Your task to perform on an android device: Do I have any events this weekend? Image 0: 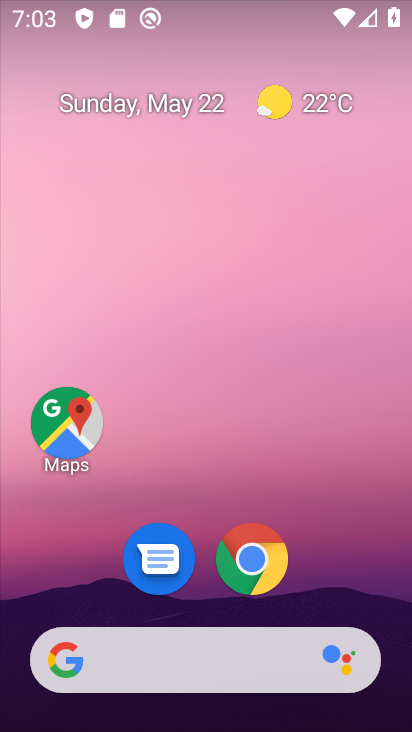
Step 0: drag from (247, 628) to (176, 96)
Your task to perform on an android device: Do I have any events this weekend? Image 1: 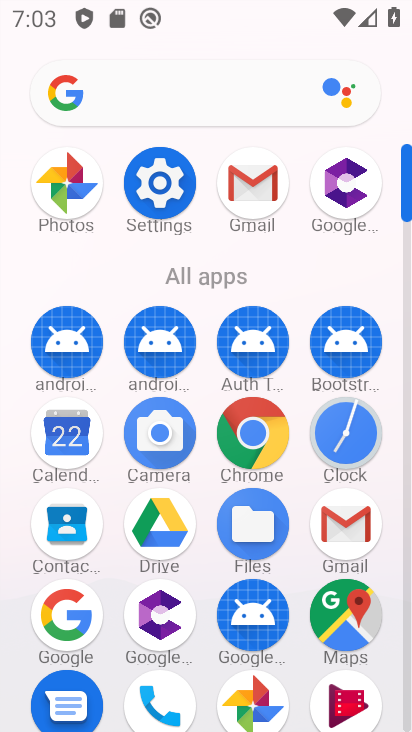
Step 1: click (74, 435)
Your task to perform on an android device: Do I have any events this weekend? Image 2: 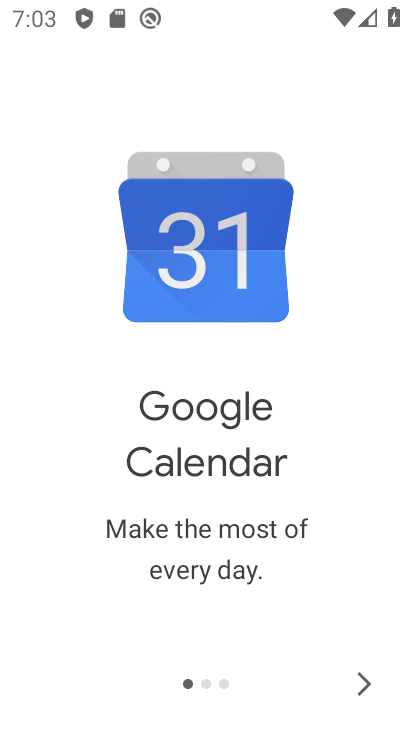
Step 2: click (360, 701)
Your task to perform on an android device: Do I have any events this weekend? Image 3: 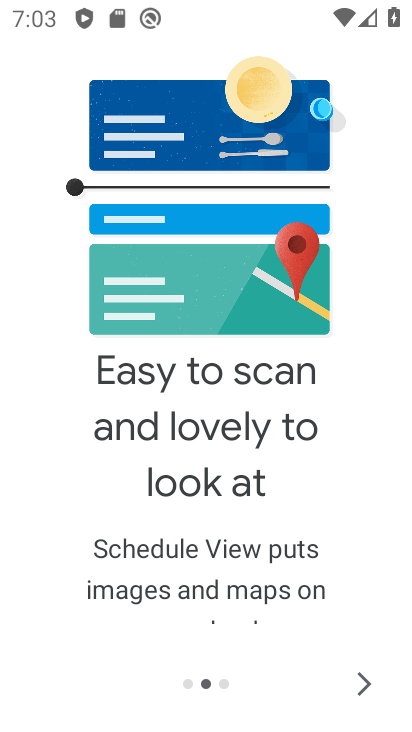
Step 3: click (361, 677)
Your task to perform on an android device: Do I have any events this weekend? Image 4: 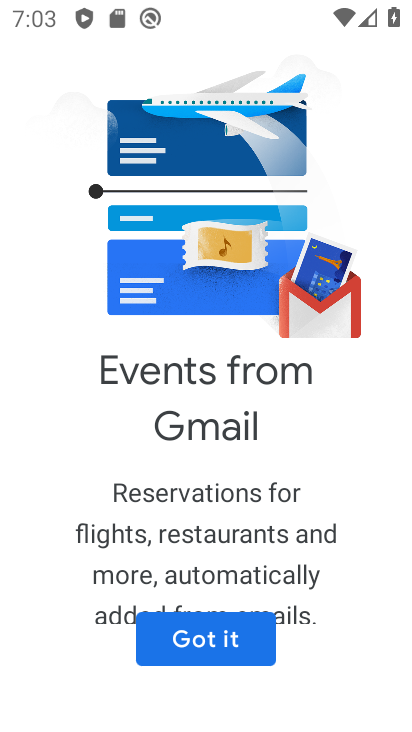
Step 4: click (180, 632)
Your task to perform on an android device: Do I have any events this weekend? Image 5: 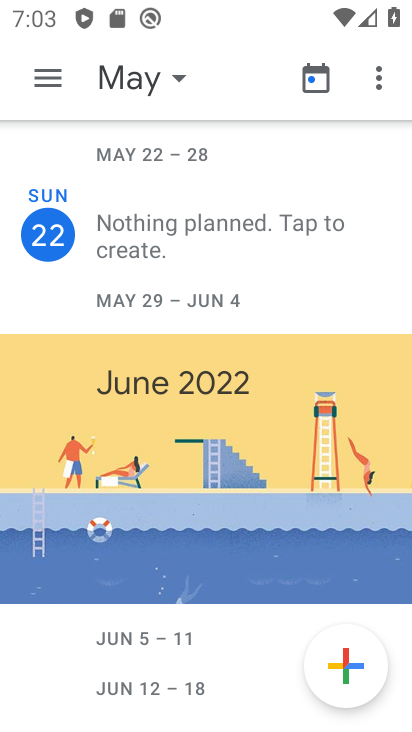
Step 5: click (41, 85)
Your task to perform on an android device: Do I have any events this weekend? Image 6: 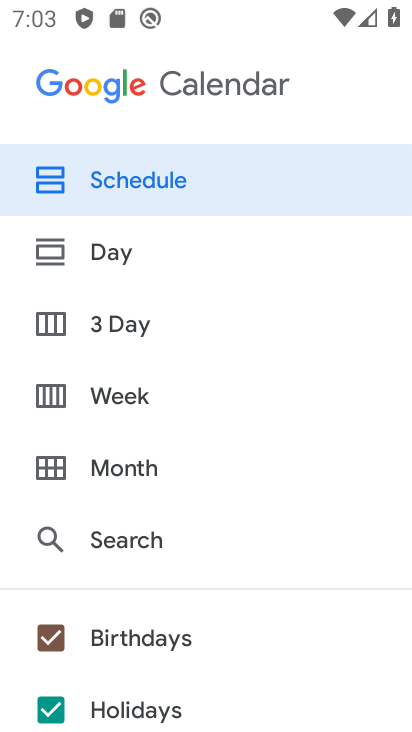
Step 6: click (115, 396)
Your task to perform on an android device: Do I have any events this weekend? Image 7: 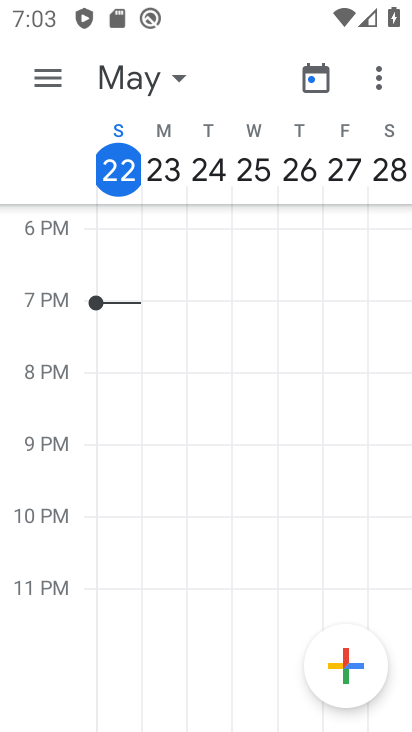
Step 7: task complete